Your task to perform on an android device: Open calendar and show me the first week of next month Image 0: 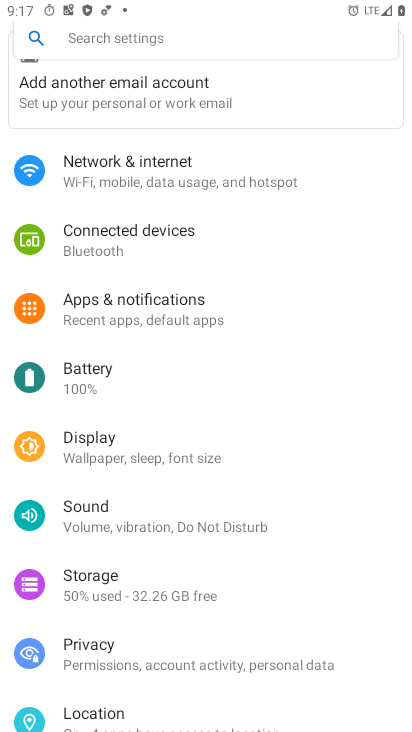
Step 0: press home button
Your task to perform on an android device: Open calendar and show me the first week of next month Image 1: 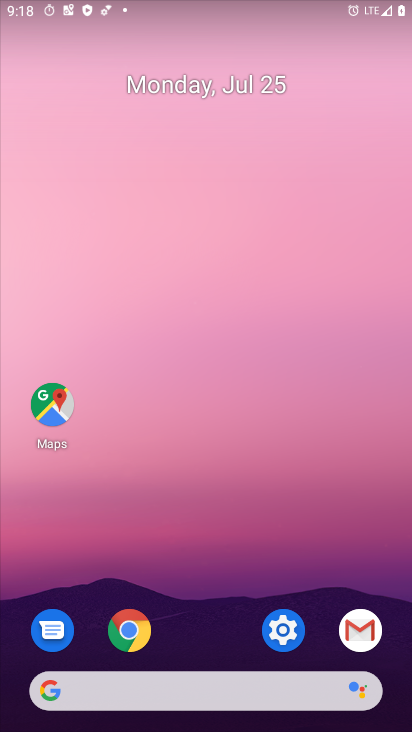
Step 1: drag from (241, 708) to (263, 142)
Your task to perform on an android device: Open calendar and show me the first week of next month Image 2: 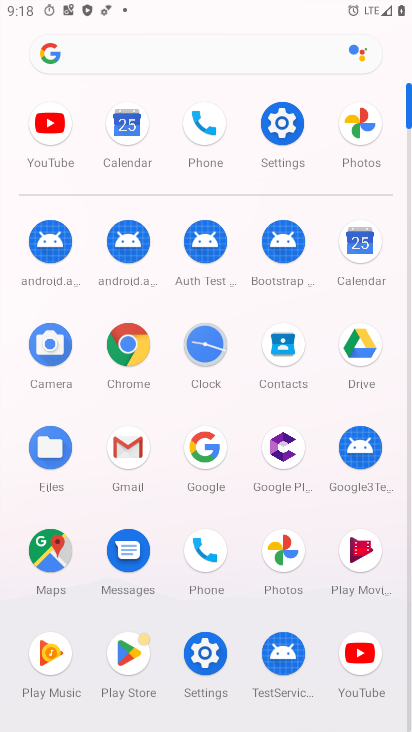
Step 2: click (363, 237)
Your task to perform on an android device: Open calendar and show me the first week of next month Image 3: 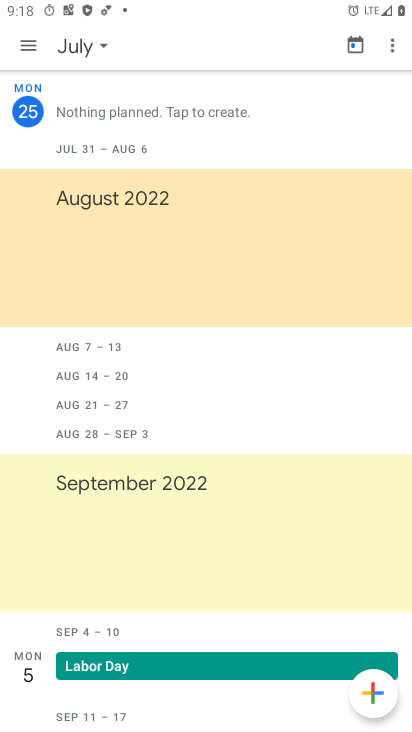
Step 3: click (31, 53)
Your task to perform on an android device: Open calendar and show me the first week of next month Image 4: 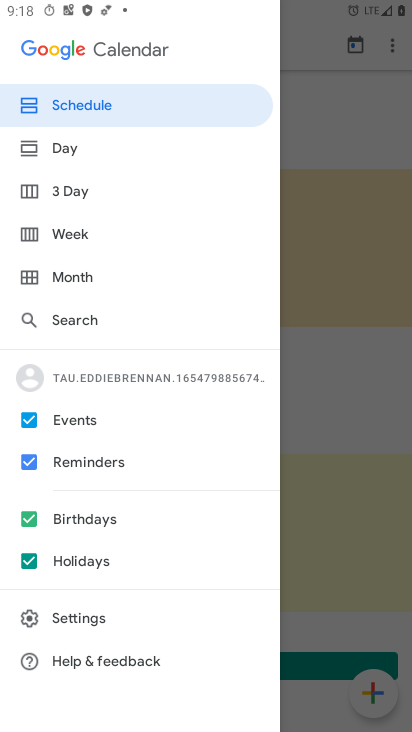
Step 4: click (91, 277)
Your task to perform on an android device: Open calendar and show me the first week of next month Image 5: 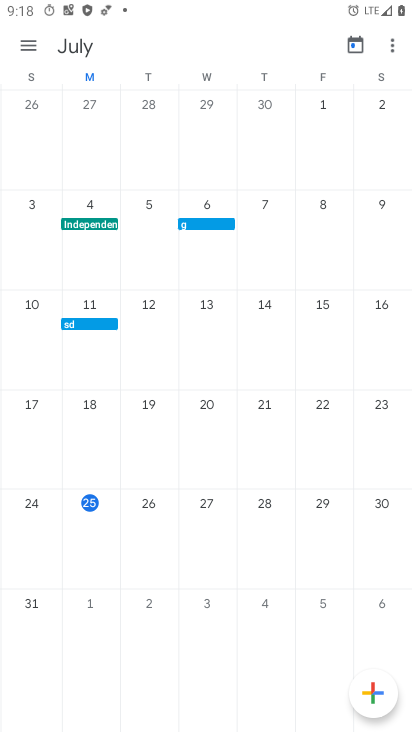
Step 5: drag from (359, 433) to (16, 440)
Your task to perform on an android device: Open calendar and show me the first week of next month Image 6: 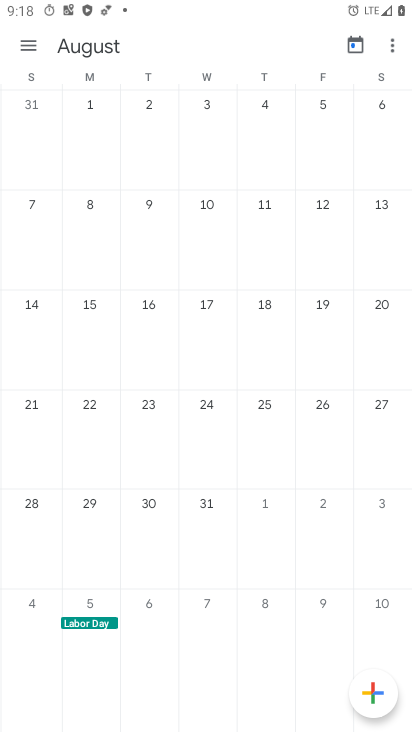
Step 6: click (97, 136)
Your task to perform on an android device: Open calendar and show me the first week of next month Image 7: 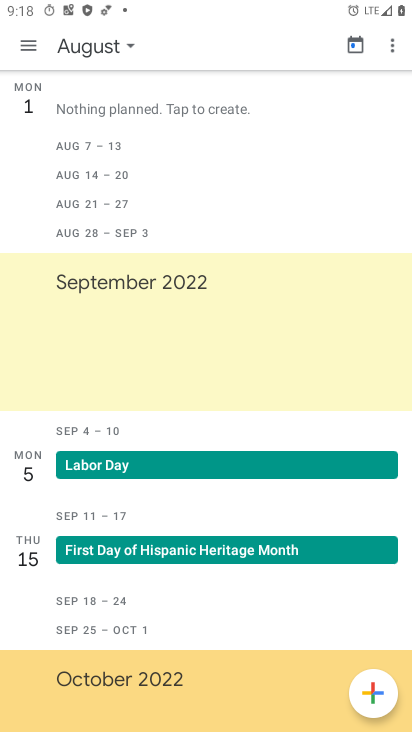
Step 7: task complete